Your task to perform on an android device: Add "energizer triple a" to the cart on newegg, then select checkout. Image 0: 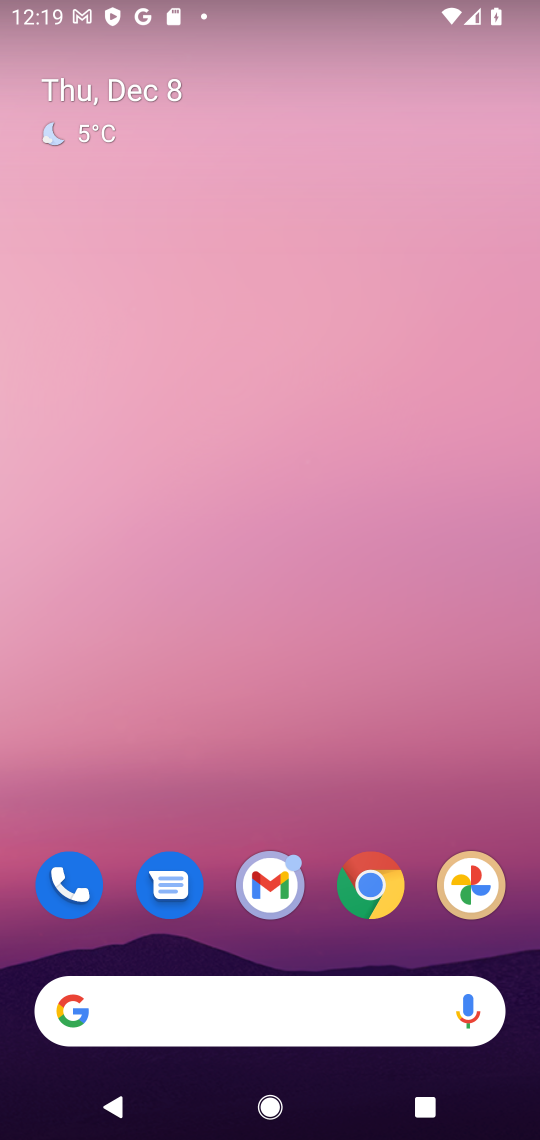
Step 0: click (367, 895)
Your task to perform on an android device: Add "energizer triple a" to the cart on newegg, then select checkout. Image 1: 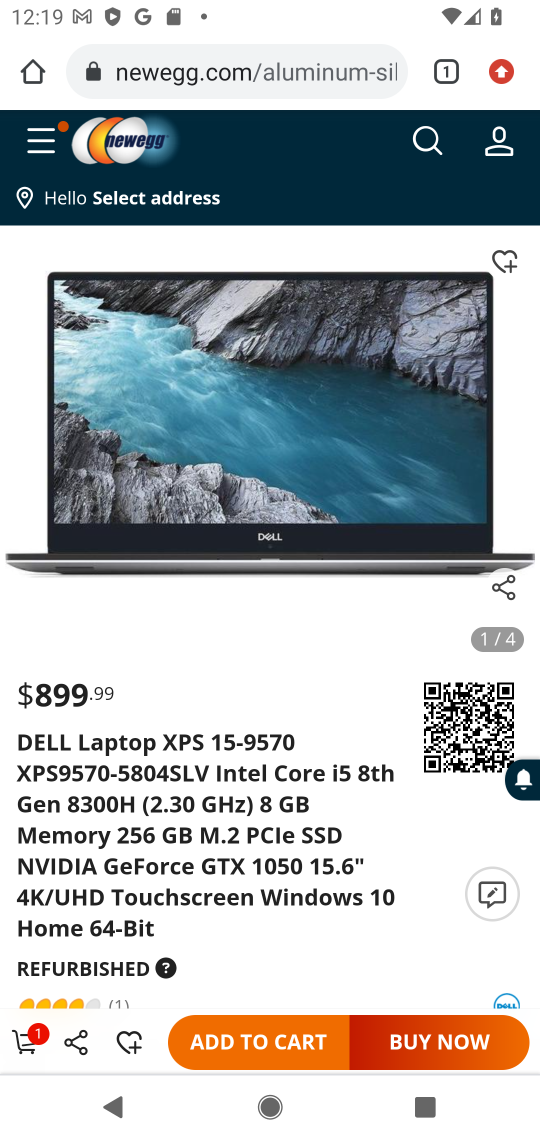
Step 1: click (269, 79)
Your task to perform on an android device: Add "energizer triple a" to the cart on newegg, then select checkout. Image 2: 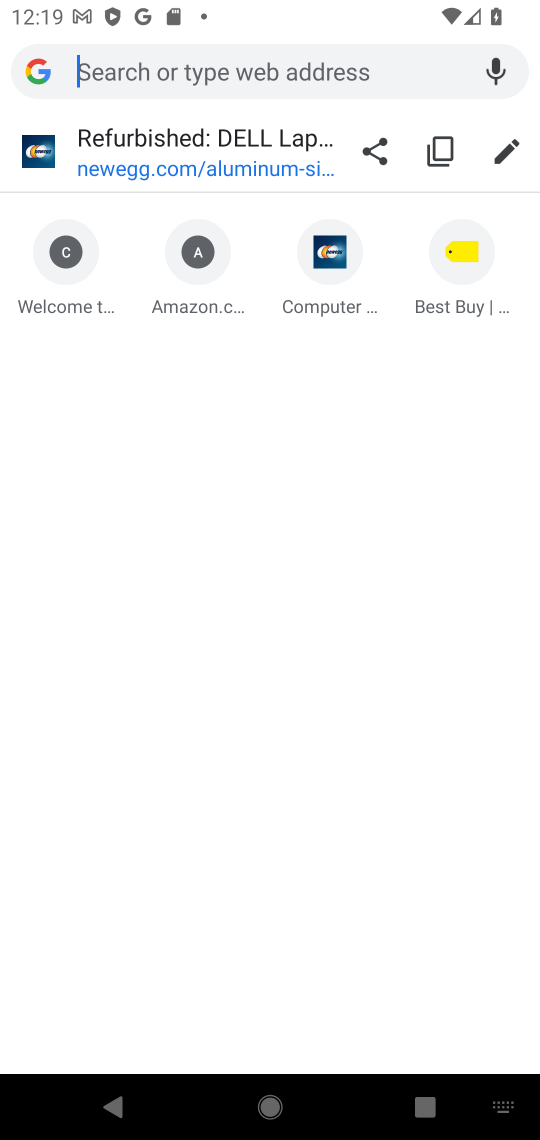
Step 2: type "NEWEGG"
Your task to perform on an android device: Add "energizer triple a" to the cart on newegg, then select checkout. Image 3: 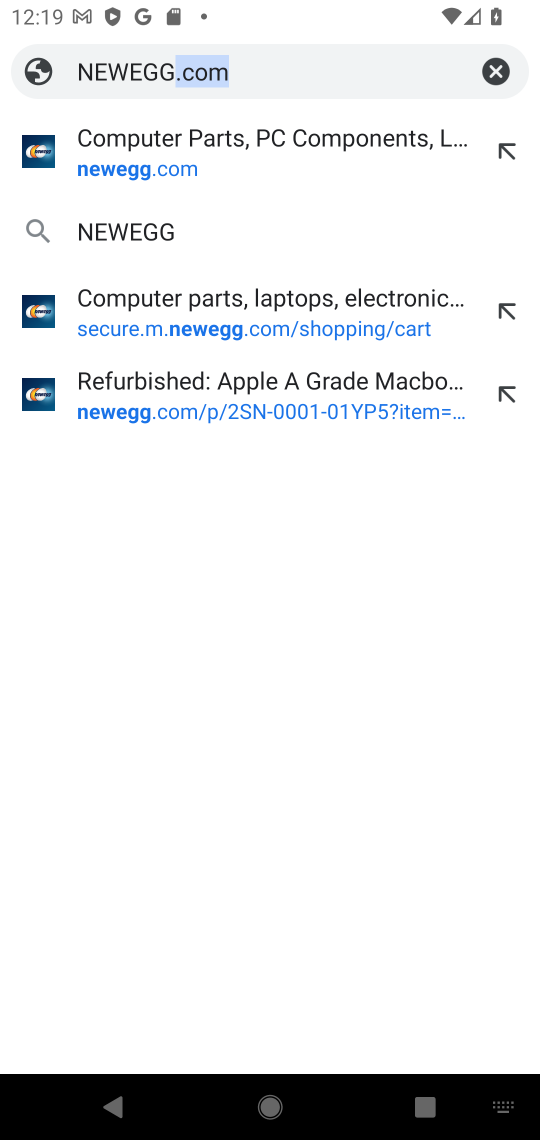
Step 3: click (234, 153)
Your task to perform on an android device: Add "energizer triple a" to the cart on newegg, then select checkout. Image 4: 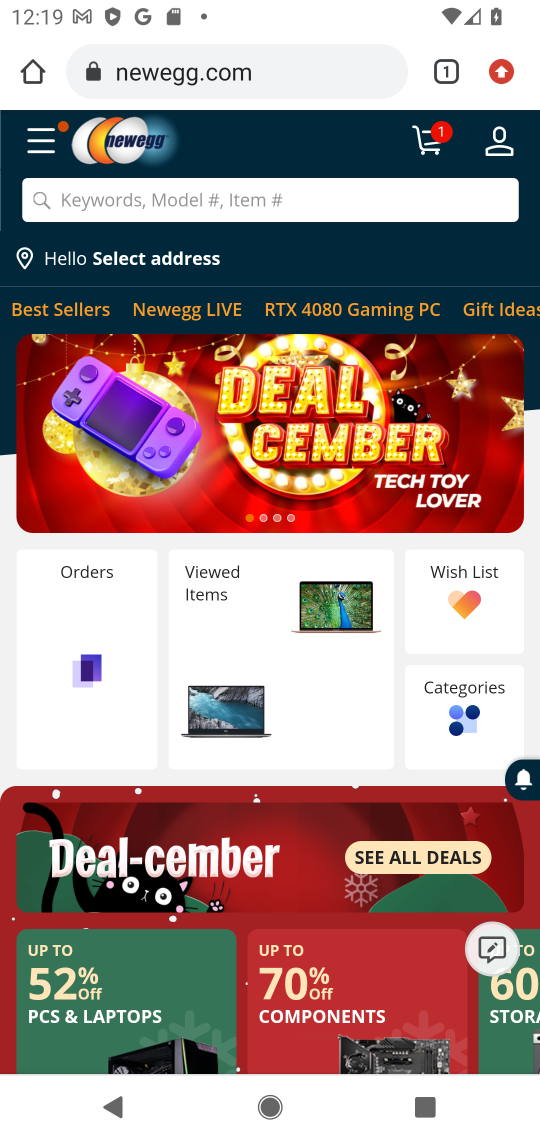
Step 4: click (379, 199)
Your task to perform on an android device: Add "energizer triple a" to the cart on newegg, then select checkout. Image 5: 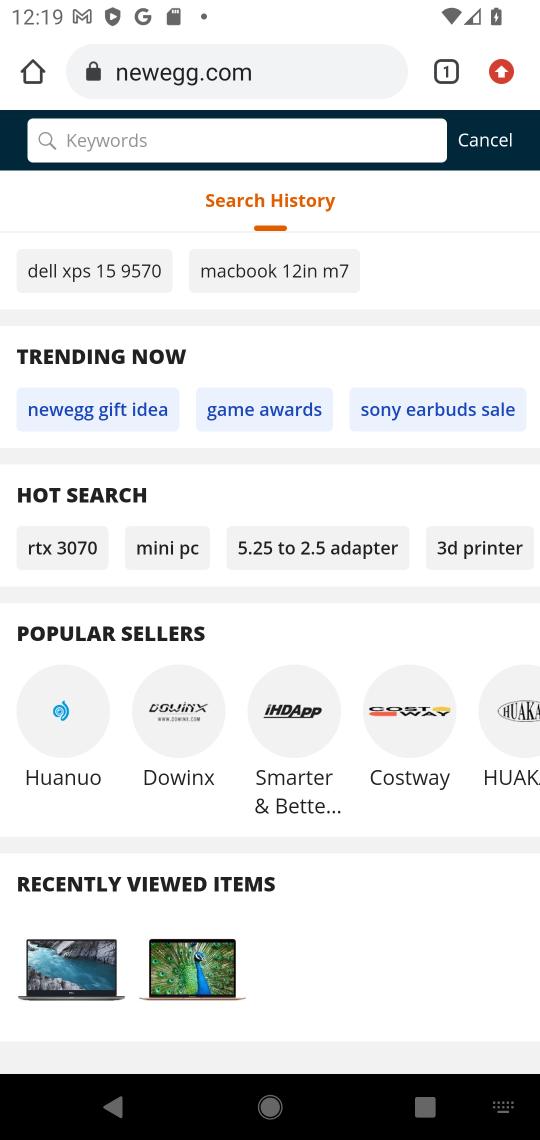
Step 5: type "ENERGIZER TRIPLE A"
Your task to perform on an android device: Add "energizer triple a" to the cart on newegg, then select checkout. Image 6: 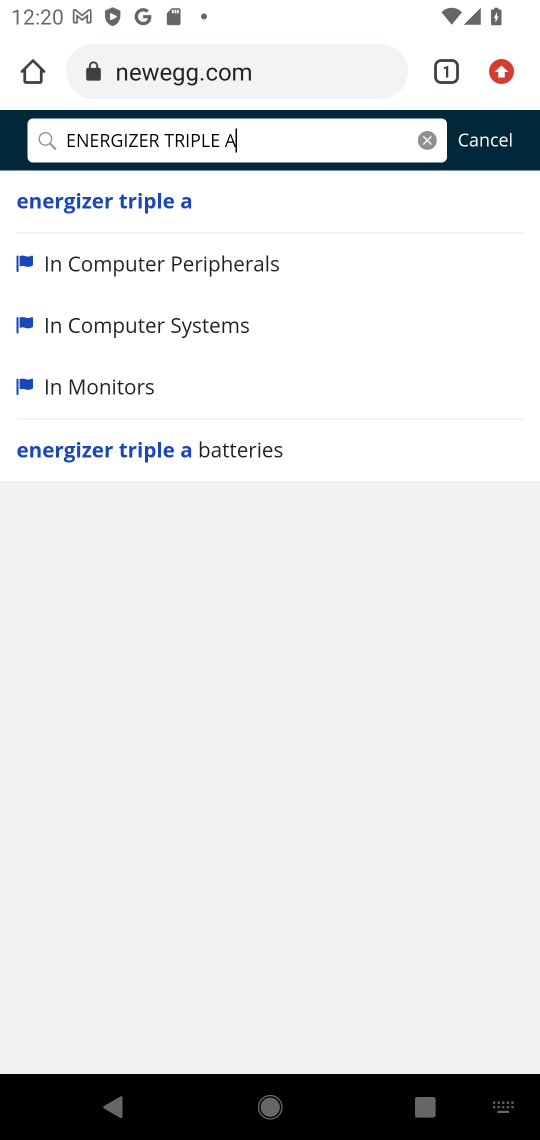
Step 6: click (195, 202)
Your task to perform on an android device: Add "energizer triple a" to the cart on newegg, then select checkout. Image 7: 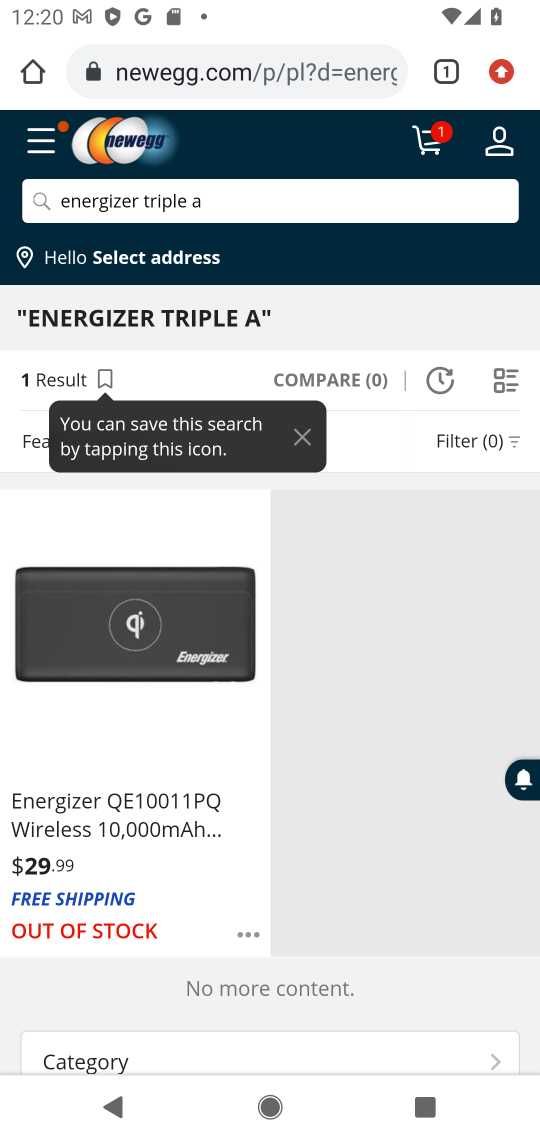
Step 7: click (98, 797)
Your task to perform on an android device: Add "energizer triple a" to the cart on newegg, then select checkout. Image 8: 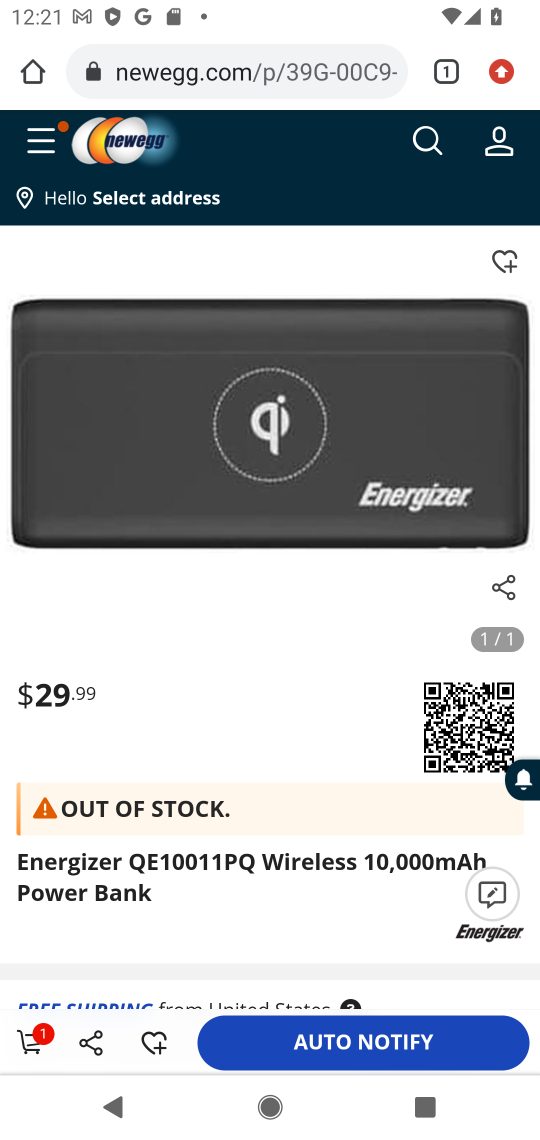
Step 8: task complete